Your task to perform on an android device: toggle notification dots Image 0: 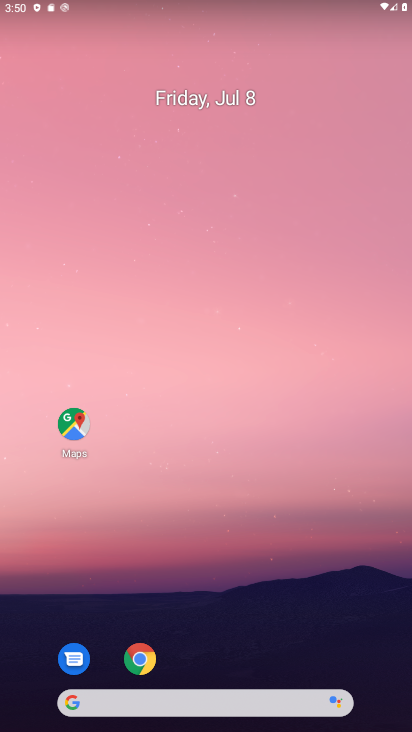
Step 0: drag from (26, 573) to (241, 158)
Your task to perform on an android device: toggle notification dots Image 1: 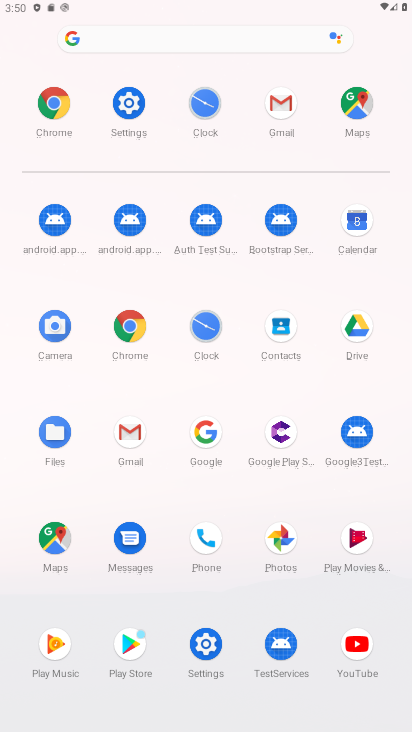
Step 1: click (112, 115)
Your task to perform on an android device: toggle notification dots Image 2: 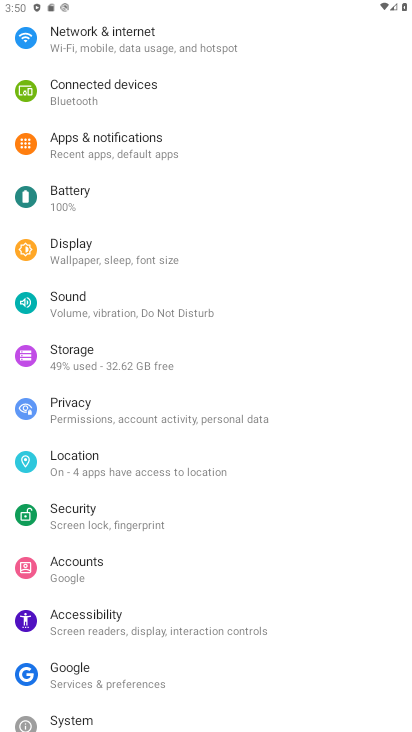
Step 2: click (198, 140)
Your task to perform on an android device: toggle notification dots Image 3: 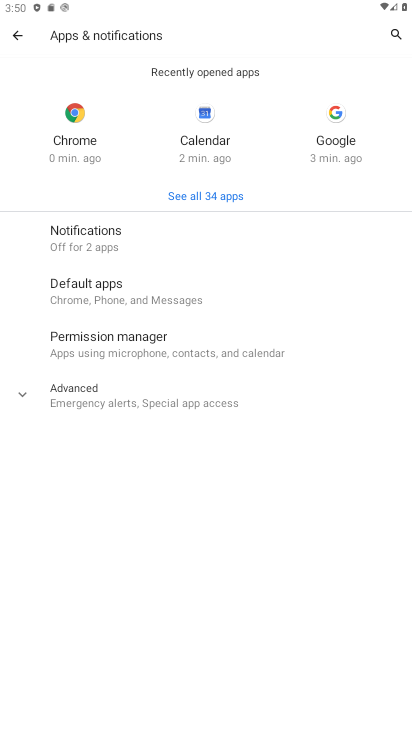
Step 3: click (204, 240)
Your task to perform on an android device: toggle notification dots Image 4: 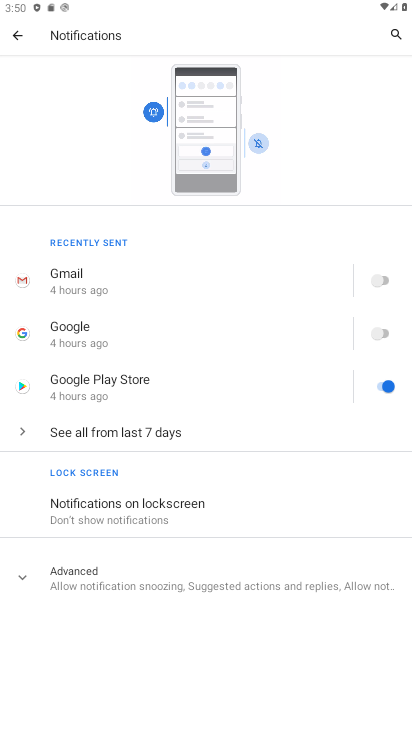
Step 4: click (134, 586)
Your task to perform on an android device: toggle notification dots Image 5: 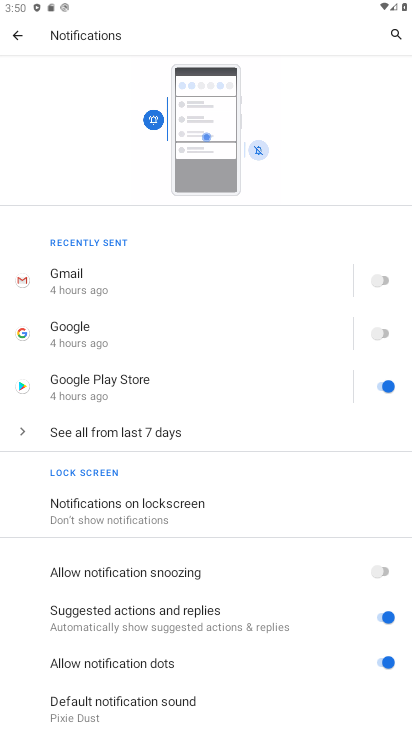
Step 5: drag from (152, 694) to (263, 354)
Your task to perform on an android device: toggle notification dots Image 6: 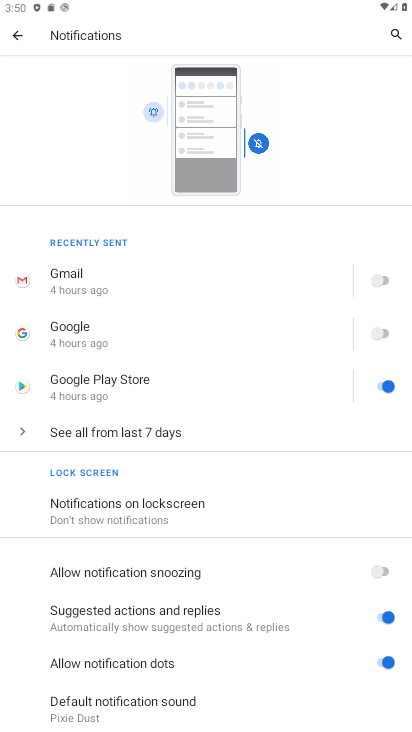
Step 6: click (384, 662)
Your task to perform on an android device: toggle notification dots Image 7: 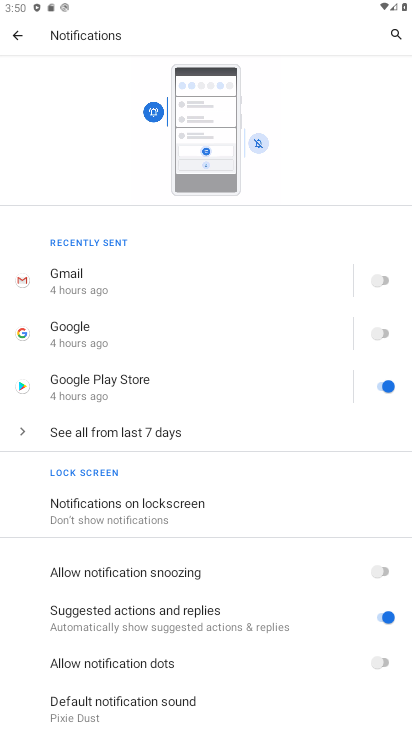
Step 7: task complete